Your task to perform on an android device: turn on bluetooth scan Image 0: 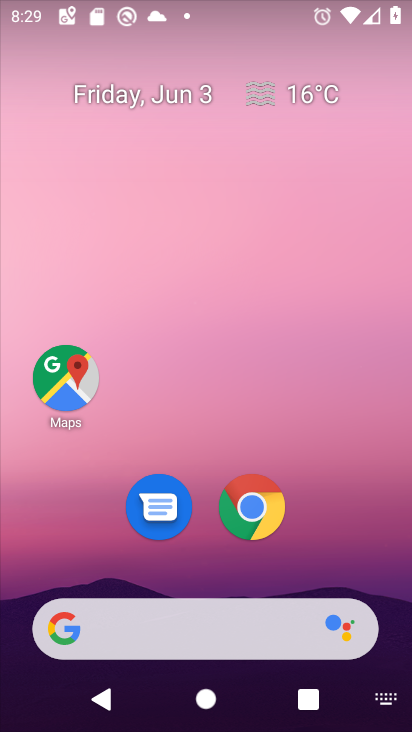
Step 0: drag from (338, 489) to (213, 27)
Your task to perform on an android device: turn on bluetooth scan Image 1: 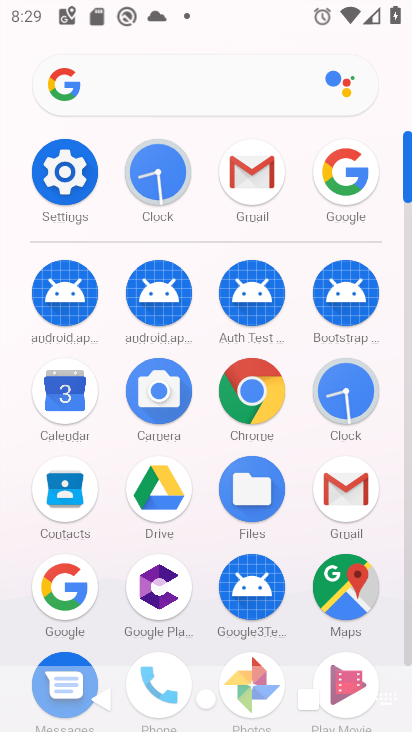
Step 1: click (62, 151)
Your task to perform on an android device: turn on bluetooth scan Image 2: 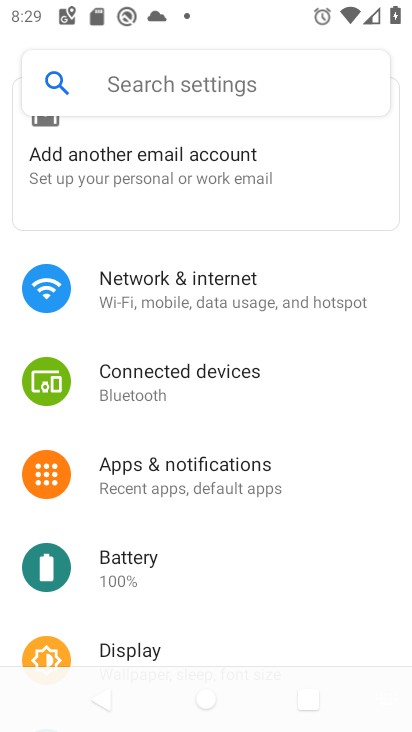
Step 2: drag from (298, 453) to (202, 0)
Your task to perform on an android device: turn on bluetooth scan Image 3: 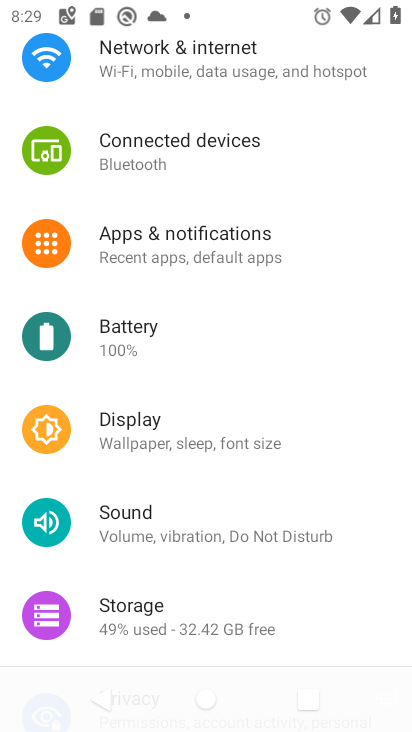
Step 3: drag from (201, 515) to (218, 76)
Your task to perform on an android device: turn on bluetooth scan Image 4: 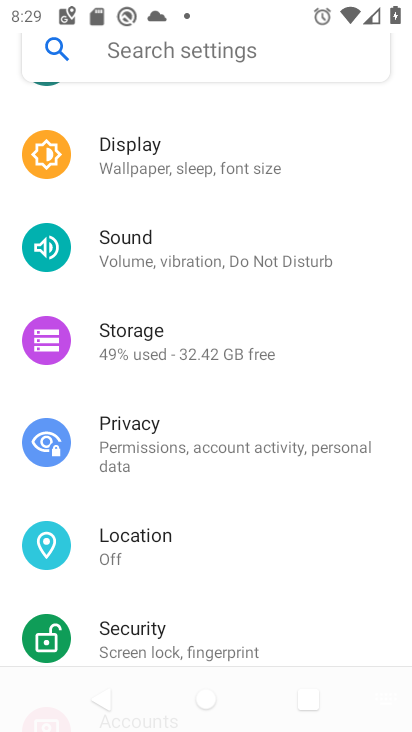
Step 4: click (217, 552)
Your task to perform on an android device: turn on bluetooth scan Image 5: 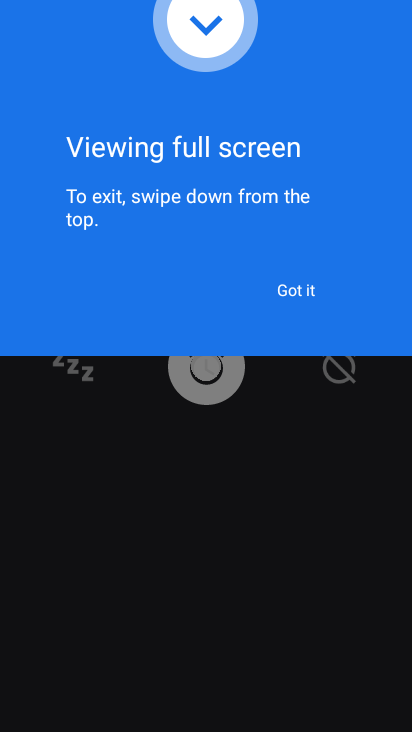
Step 5: press home button
Your task to perform on an android device: turn on bluetooth scan Image 6: 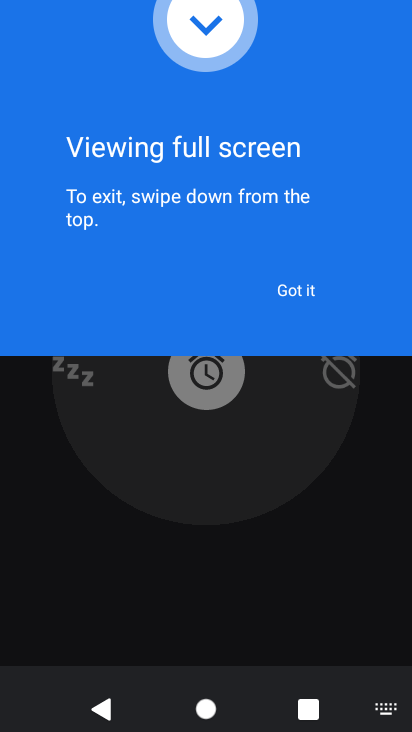
Step 6: click (295, 284)
Your task to perform on an android device: turn on bluetooth scan Image 7: 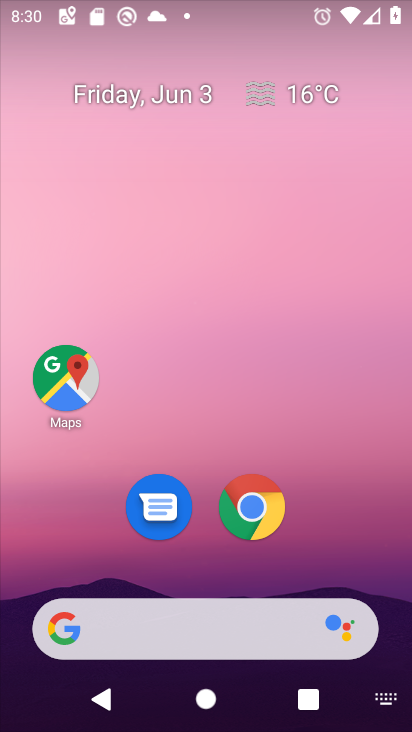
Step 7: drag from (259, 41) to (249, 5)
Your task to perform on an android device: turn on bluetooth scan Image 8: 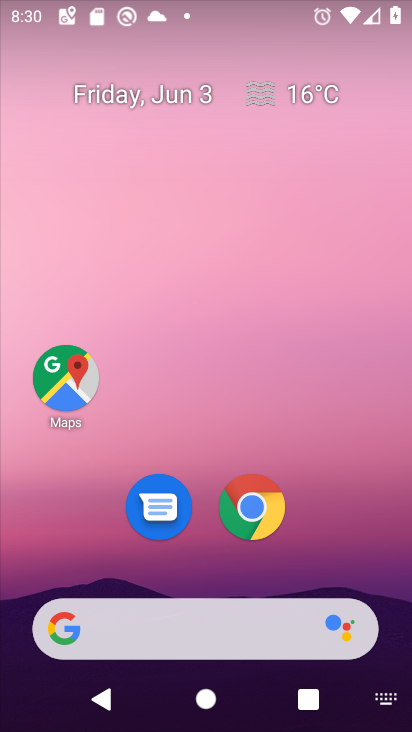
Step 8: drag from (311, 399) to (245, 0)
Your task to perform on an android device: turn on bluetooth scan Image 9: 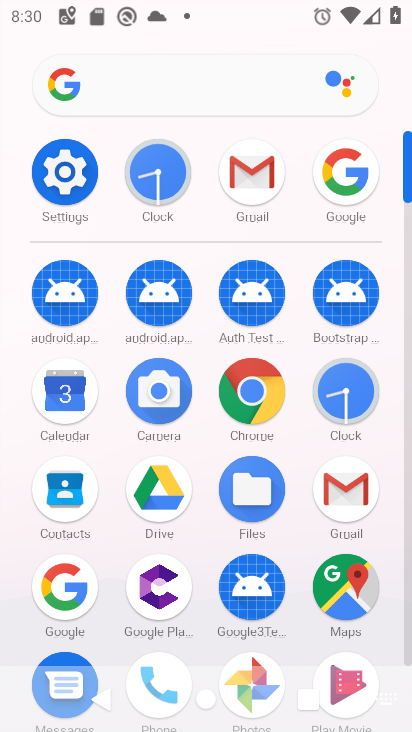
Step 9: click (73, 172)
Your task to perform on an android device: turn on bluetooth scan Image 10: 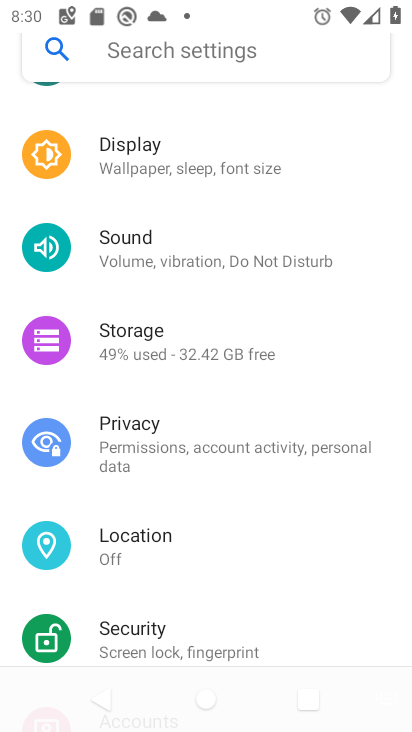
Step 10: click (241, 559)
Your task to perform on an android device: turn on bluetooth scan Image 11: 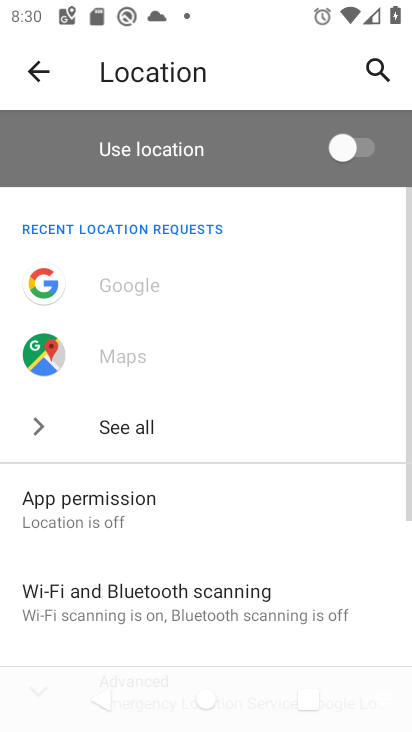
Step 11: click (254, 602)
Your task to perform on an android device: turn on bluetooth scan Image 12: 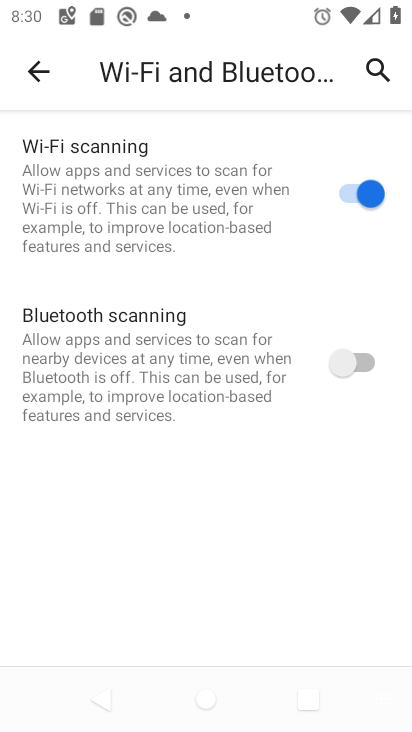
Step 12: click (329, 361)
Your task to perform on an android device: turn on bluetooth scan Image 13: 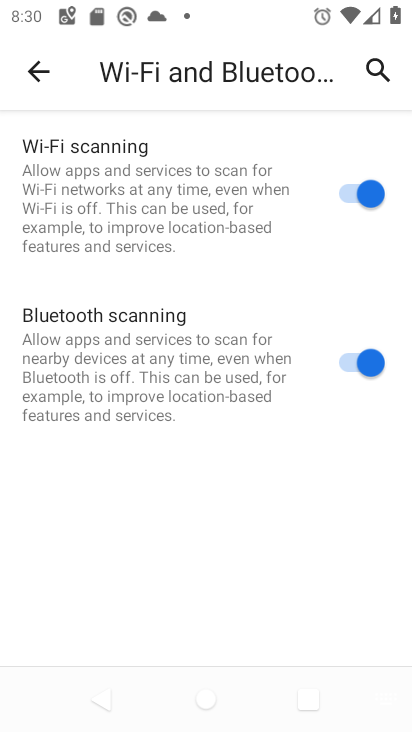
Step 13: task complete